Your task to perform on an android device: open a new tab in the chrome app Image 0: 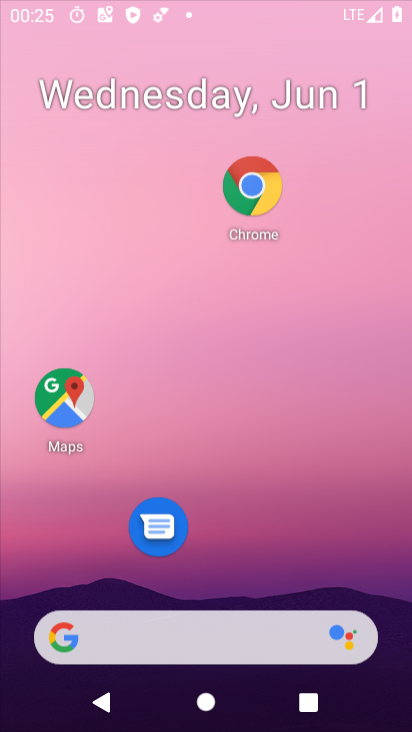
Step 0: click (190, 200)
Your task to perform on an android device: open a new tab in the chrome app Image 1: 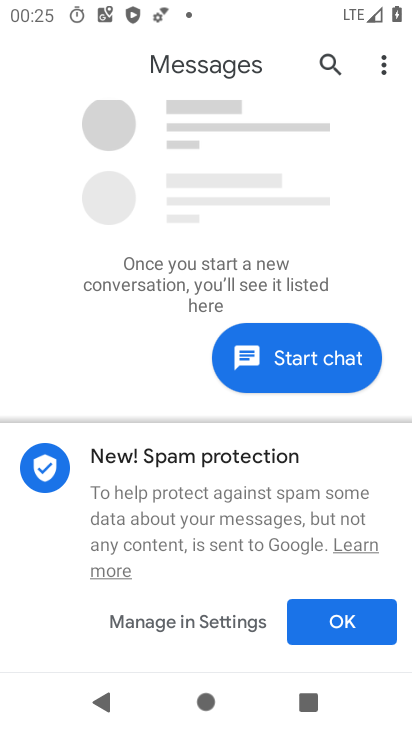
Step 1: drag from (237, 554) to (237, 331)
Your task to perform on an android device: open a new tab in the chrome app Image 2: 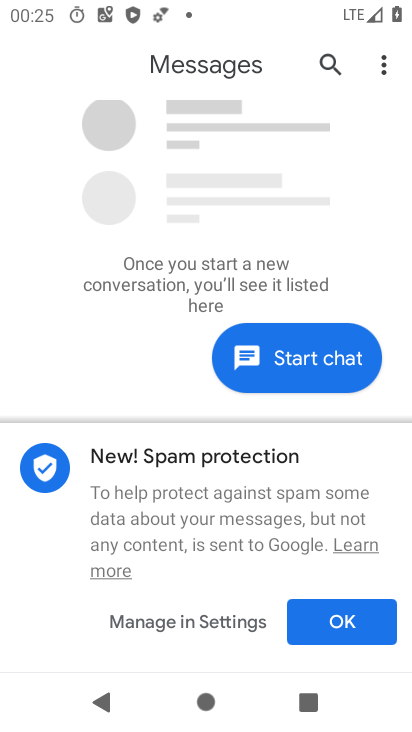
Step 2: drag from (221, 560) to (214, 105)
Your task to perform on an android device: open a new tab in the chrome app Image 3: 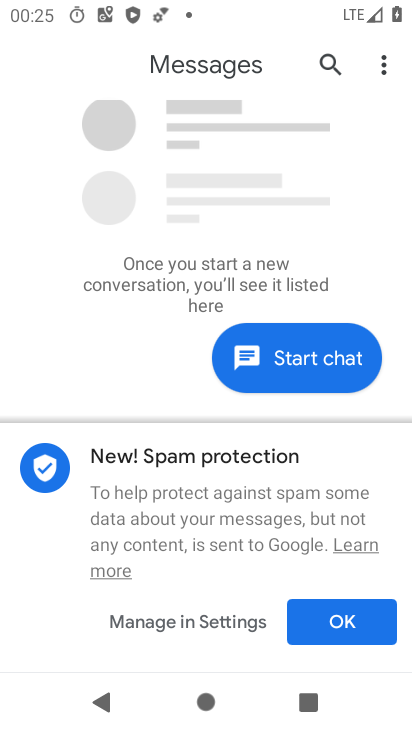
Step 3: press home button
Your task to perform on an android device: open a new tab in the chrome app Image 4: 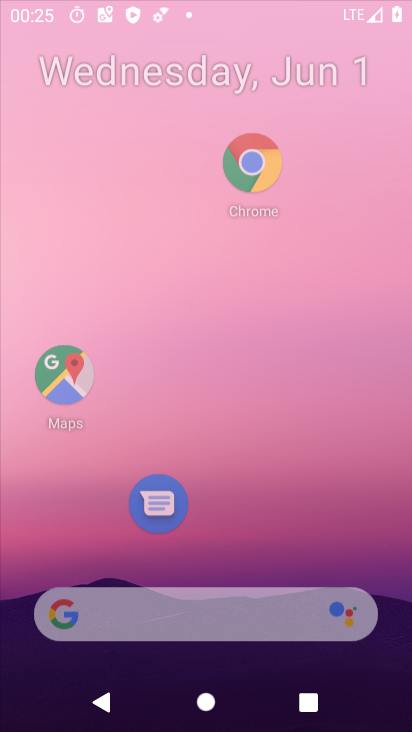
Step 4: drag from (212, 580) to (239, 201)
Your task to perform on an android device: open a new tab in the chrome app Image 5: 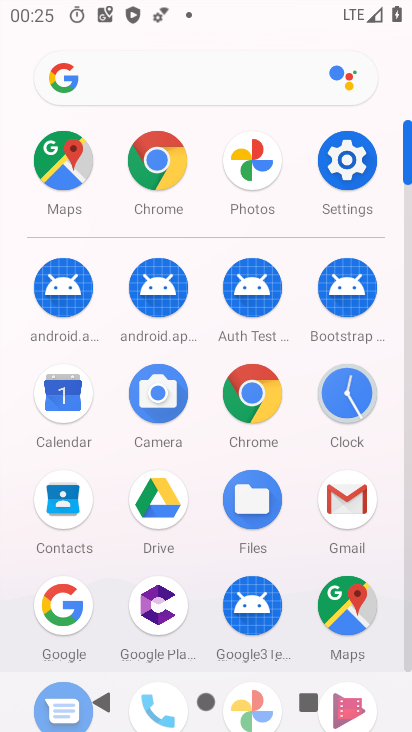
Step 5: click (250, 399)
Your task to perform on an android device: open a new tab in the chrome app Image 6: 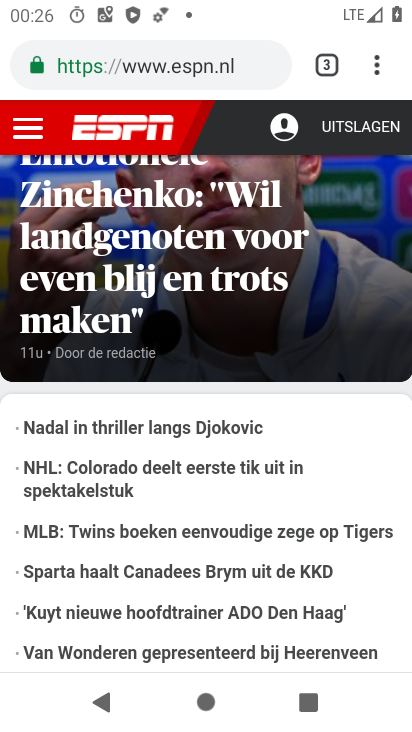
Step 6: drag from (382, 69) to (142, 583)
Your task to perform on an android device: open a new tab in the chrome app Image 7: 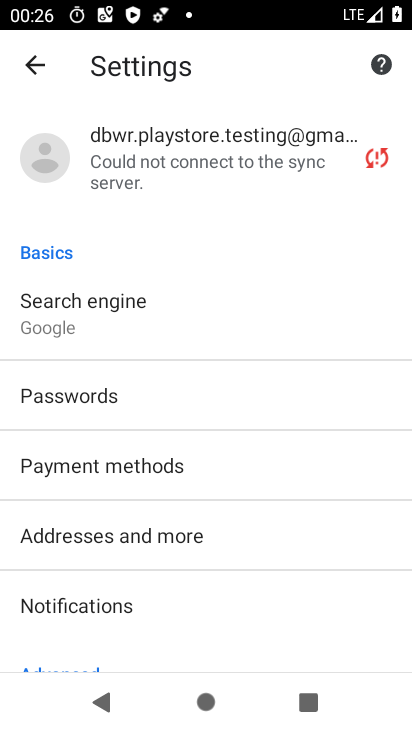
Step 7: drag from (180, 577) to (196, 263)
Your task to perform on an android device: open a new tab in the chrome app Image 8: 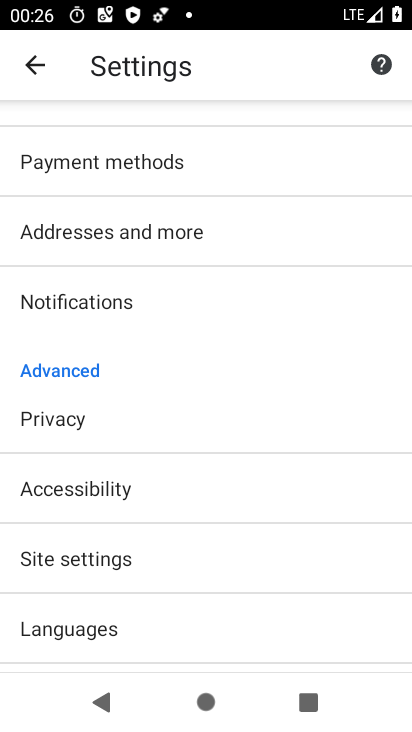
Step 8: drag from (169, 228) to (330, 718)
Your task to perform on an android device: open a new tab in the chrome app Image 9: 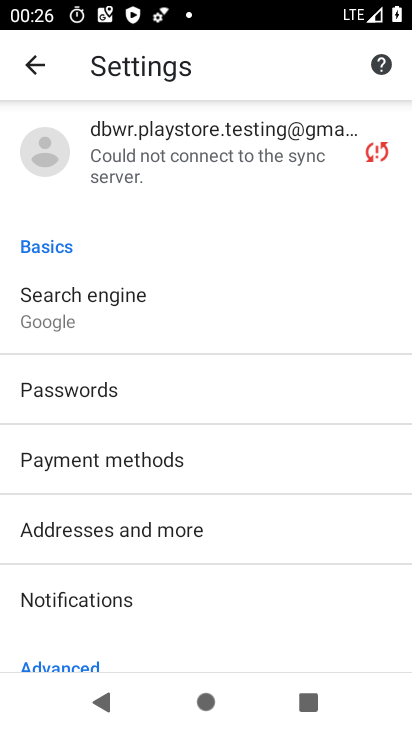
Step 9: click (29, 69)
Your task to perform on an android device: open a new tab in the chrome app Image 10: 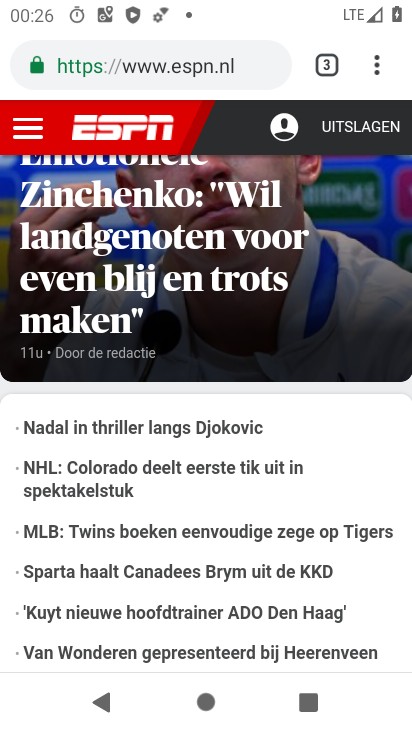
Step 10: task complete